Your task to perform on an android device: Open calendar and show me the second week of next month Image 0: 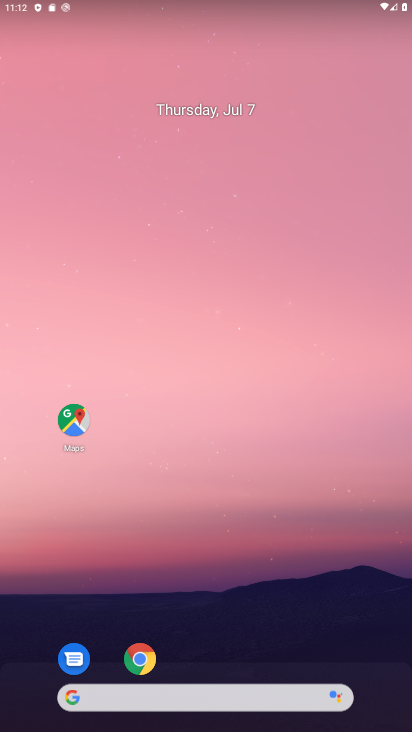
Step 0: click (186, 118)
Your task to perform on an android device: Open calendar and show me the second week of next month Image 1: 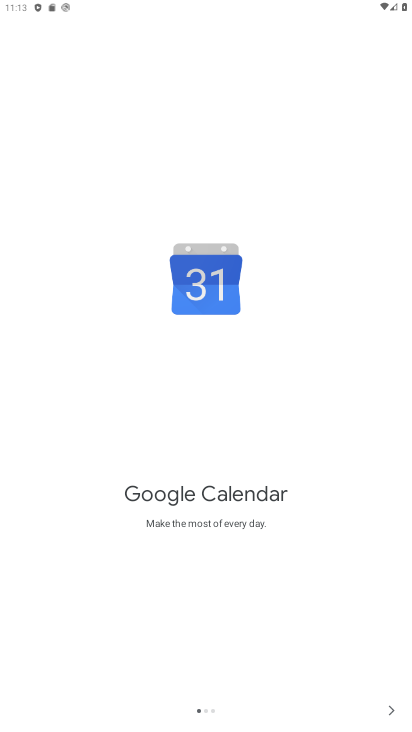
Step 1: click (396, 713)
Your task to perform on an android device: Open calendar and show me the second week of next month Image 2: 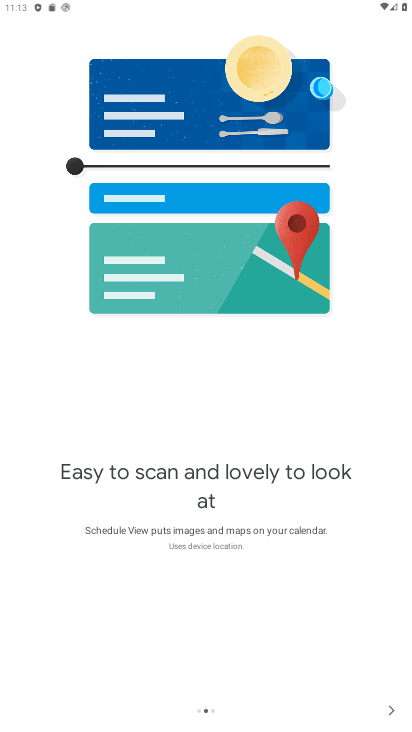
Step 2: click (396, 713)
Your task to perform on an android device: Open calendar and show me the second week of next month Image 3: 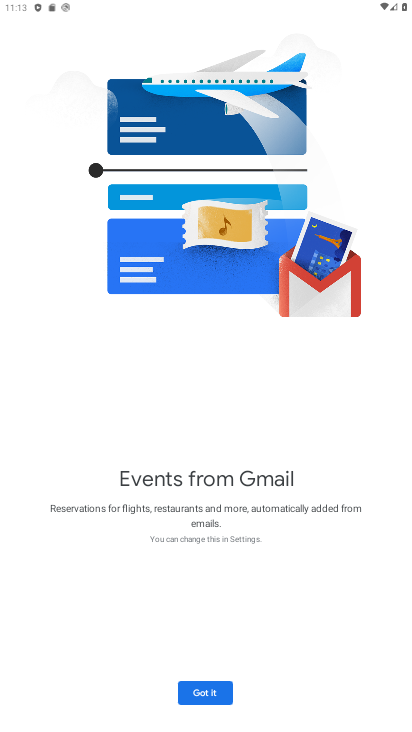
Step 3: click (189, 691)
Your task to perform on an android device: Open calendar and show me the second week of next month Image 4: 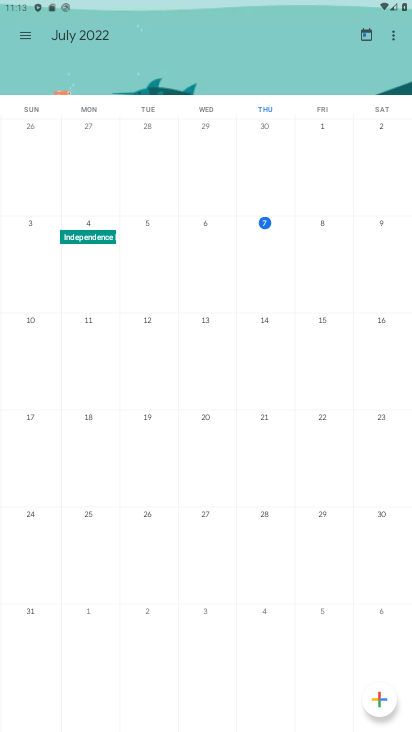
Step 4: click (93, 32)
Your task to perform on an android device: Open calendar and show me the second week of next month Image 5: 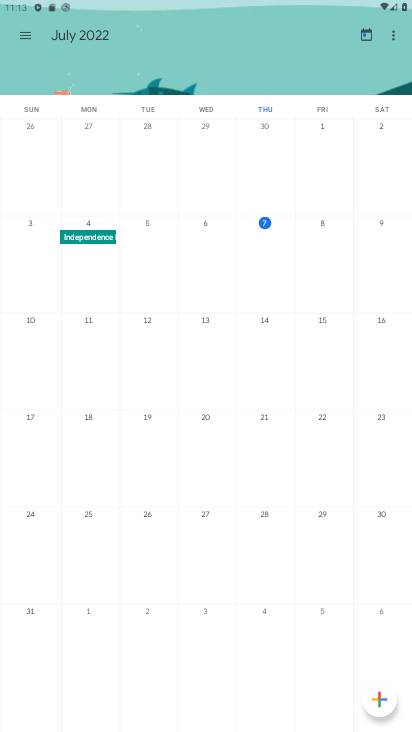
Step 5: click (93, 32)
Your task to perform on an android device: Open calendar and show me the second week of next month Image 6: 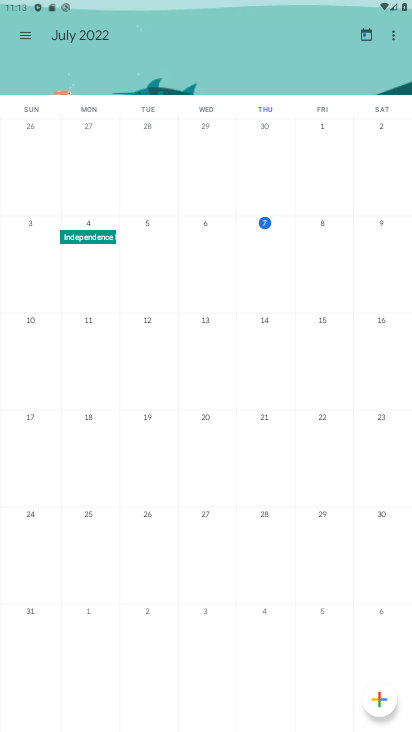
Step 6: click (33, 33)
Your task to perform on an android device: Open calendar and show me the second week of next month Image 7: 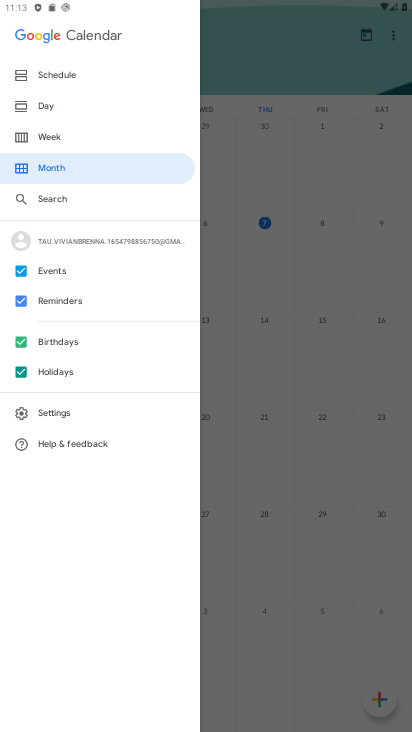
Step 7: click (72, 100)
Your task to perform on an android device: Open calendar and show me the second week of next month Image 8: 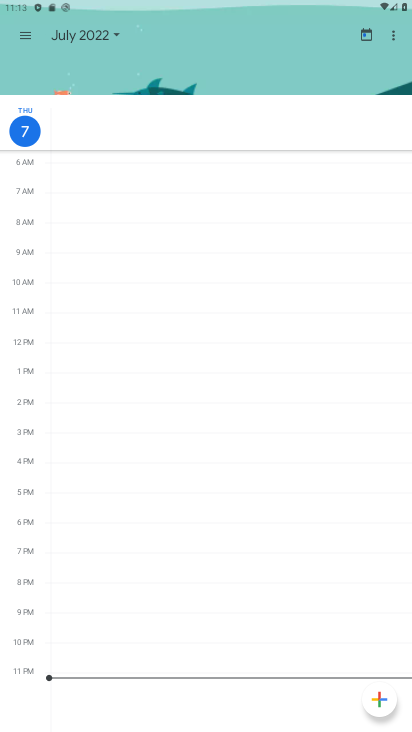
Step 8: click (91, 27)
Your task to perform on an android device: Open calendar and show me the second week of next month Image 9: 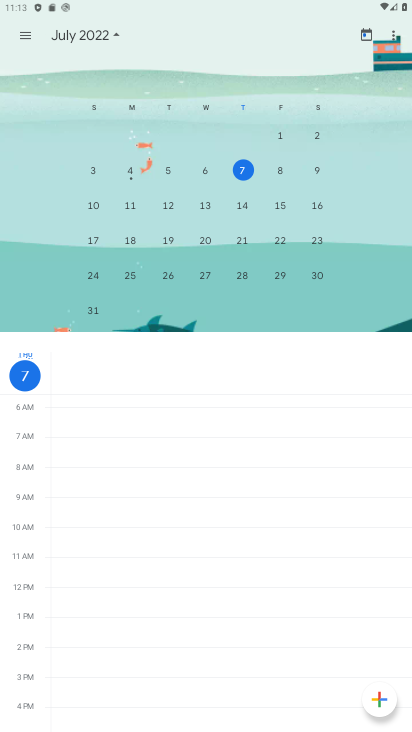
Step 9: drag from (367, 309) to (78, 323)
Your task to perform on an android device: Open calendar and show me the second week of next month Image 10: 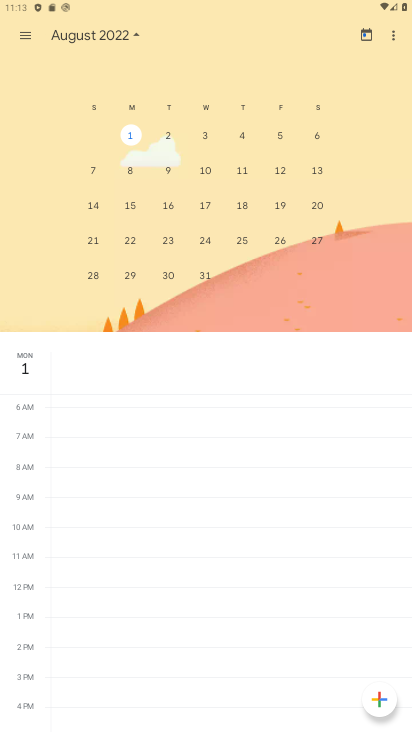
Step 10: click (166, 171)
Your task to perform on an android device: Open calendar and show me the second week of next month Image 11: 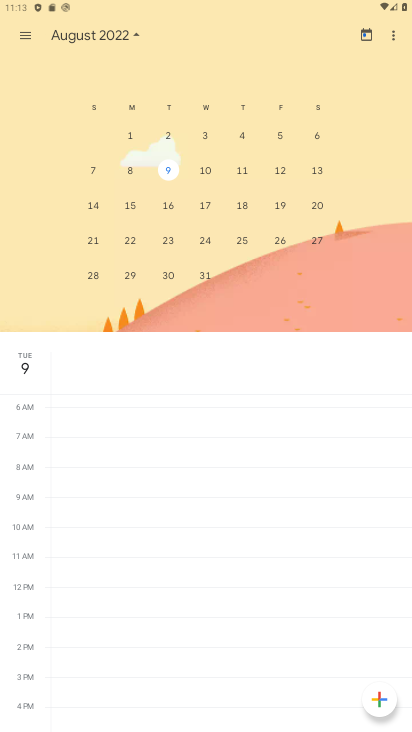
Step 11: task complete